Your task to perform on an android device: turn on improve location accuracy Image 0: 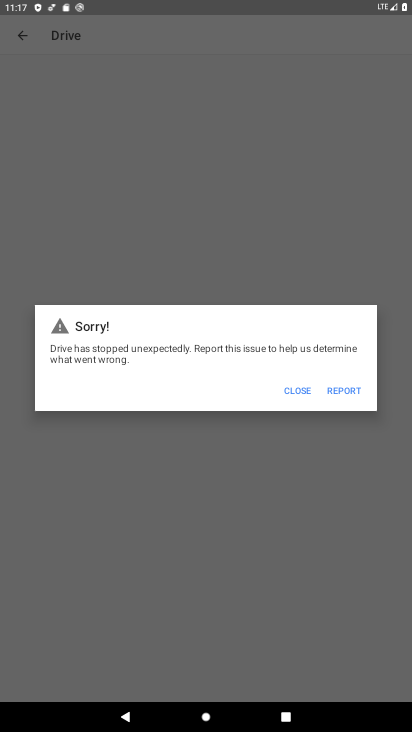
Step 0: press home button
Your task to perform on an android device: turn on improve location accuracy Image 1: 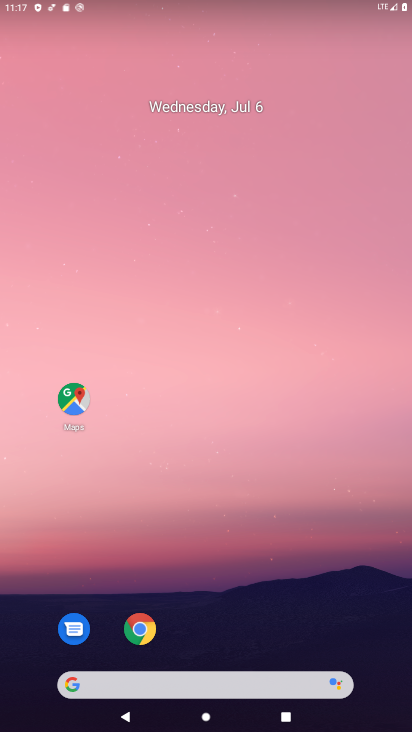
Step 1: drag from (222, 622) to (226, 171)
Your task to perform on an android device: turn on improve location accuracy Image 2: 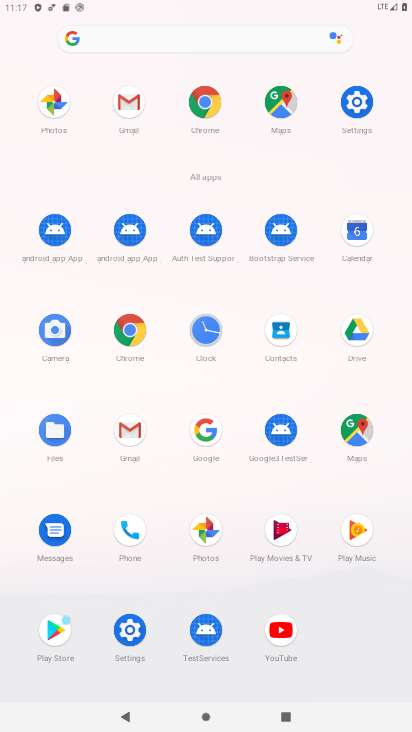
Step 2: click (339, 104)
Your task to perform on an android device: turn on improve location accuracy Image 3: 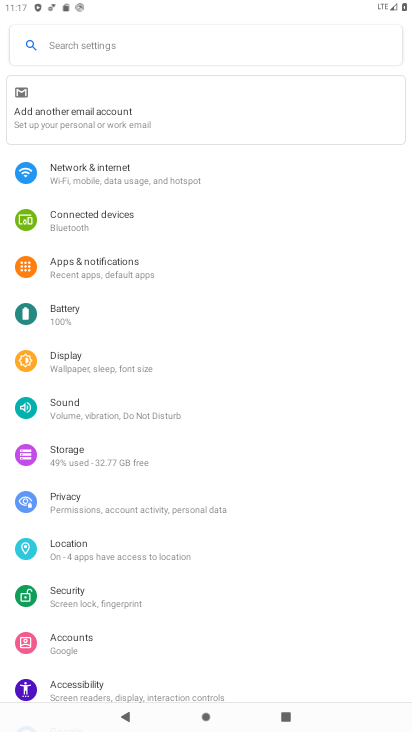
Step 3: click (149, 540)
Your task to perform on an android device: turn on improve location accuracy Image 4: 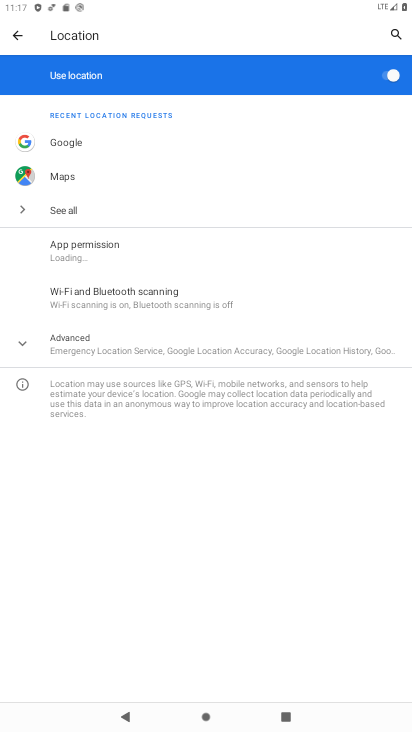
Step 4: click (165, 347)
Your task to perform on an android device: turn on improve location accuracy Image 5: 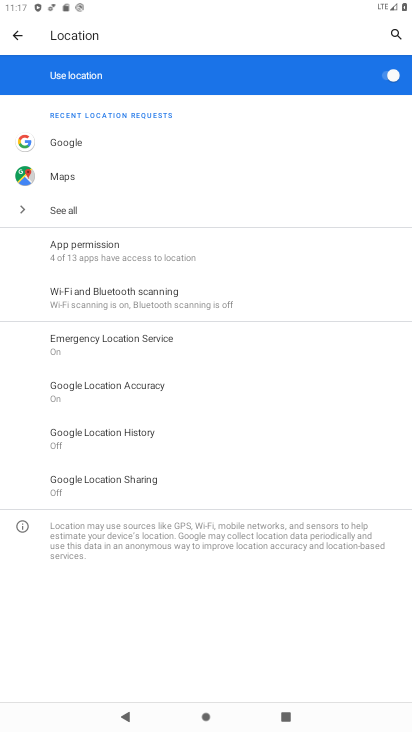
Step 5: click (170, 396)
Your task to perform on an android device: turn on improve location accuracy Image 6: 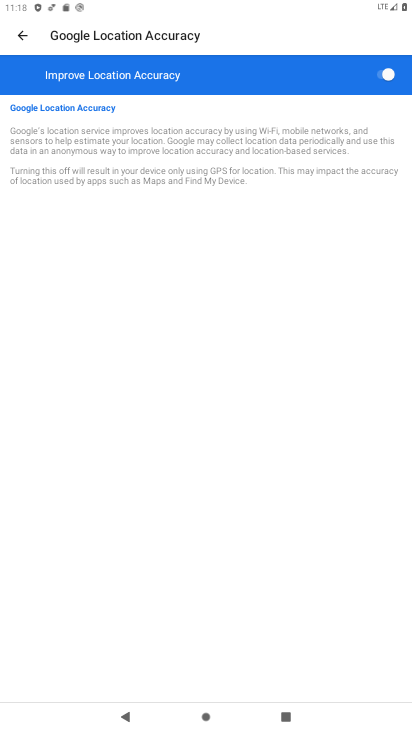
Step 6: task complete